Your task to perform on an android device: Go to display settings Image 0: 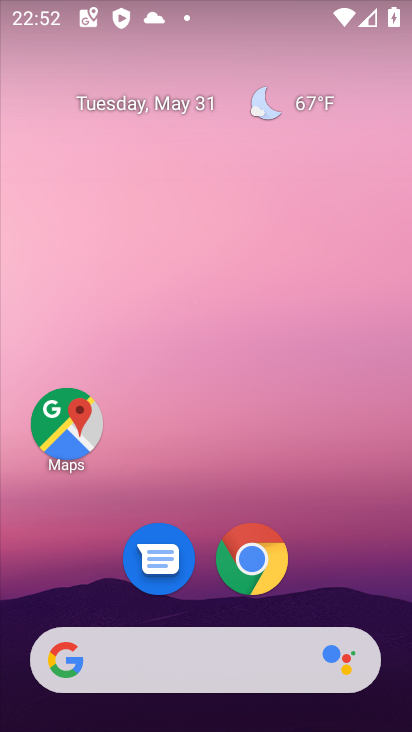
Step 0: drag from (330, 571) to (307, 68)
Your task to perform on an android device: Go to display settings Image 1: 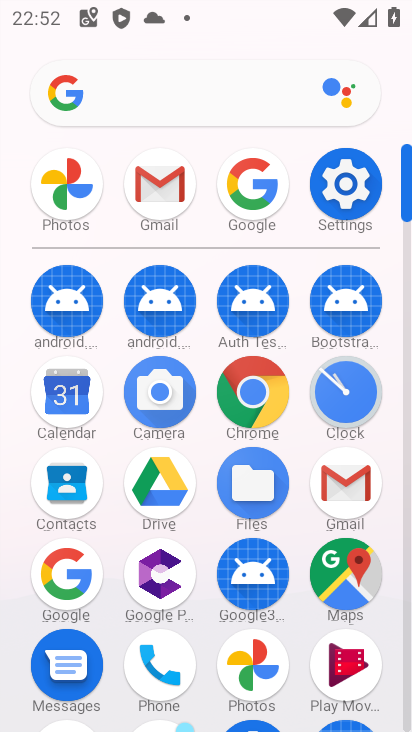
Step 1: click (349, 184)
Your task to perform on an android device: Go to display settings Image 2: 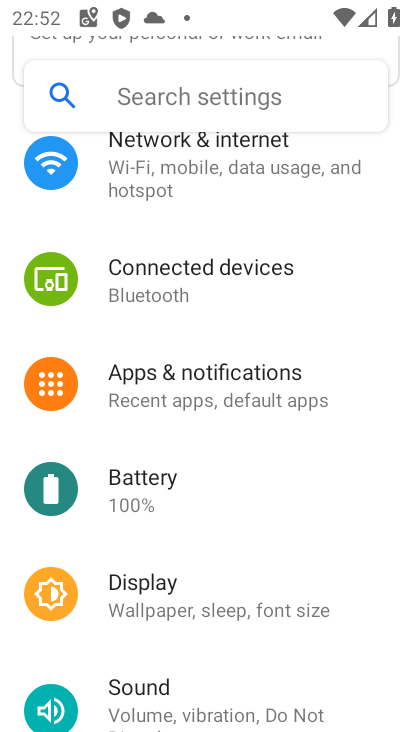
Step 2: click (162, 596)
Your task to perform on an android device: Go to display settings Image 3: 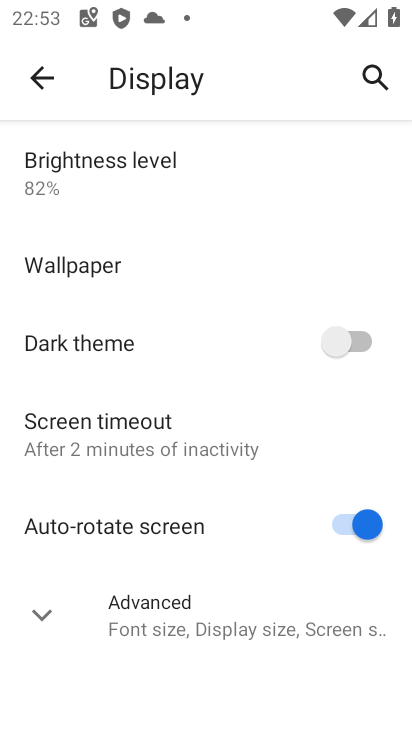
Step 3: task complete